Your task to perform on an android device: set default search engine in the chrome app Image 0: 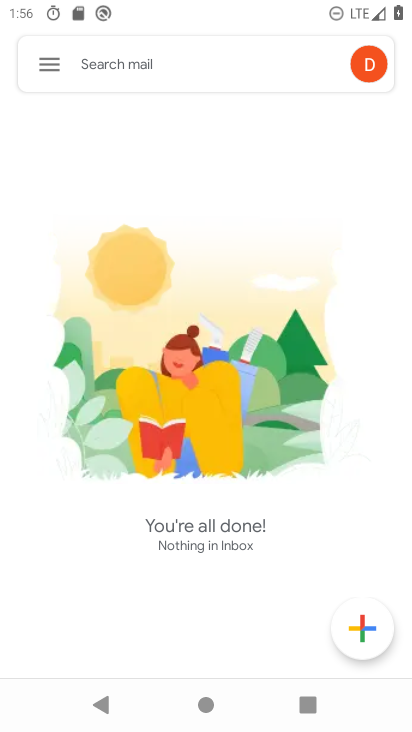
Step 0: press home button
Your task to perform on an android device: set default search engine in the chrome app Image 1: 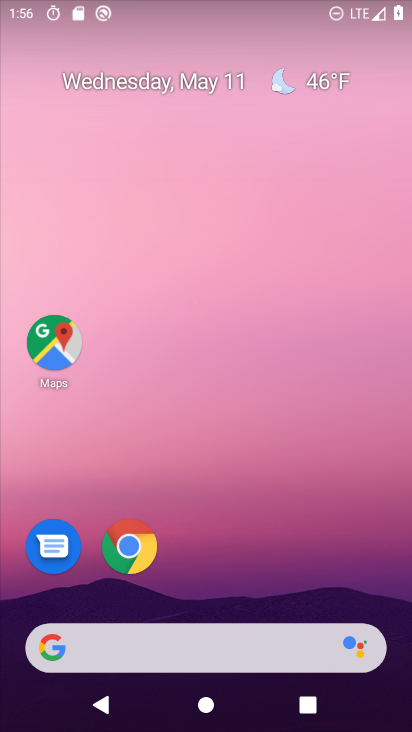
Step 1: drag from (220, 672) to (156, 271)
Your task to perform on an android device: set default search engine in the chrome app Image 2: 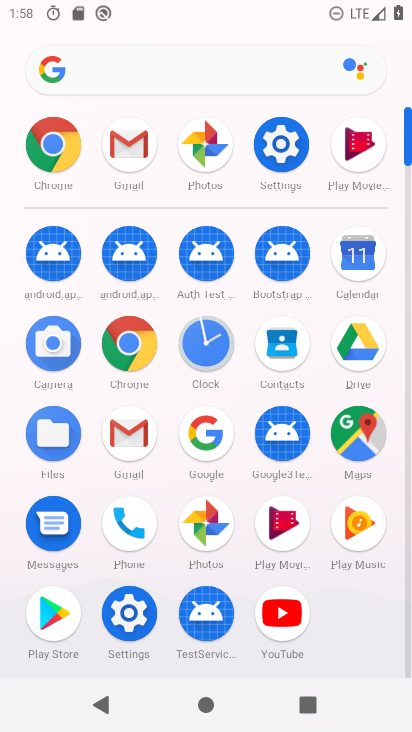
Step 2: click (60, 141)
Your task to perform on an android device: set default search engine in the chrome app Image 3: 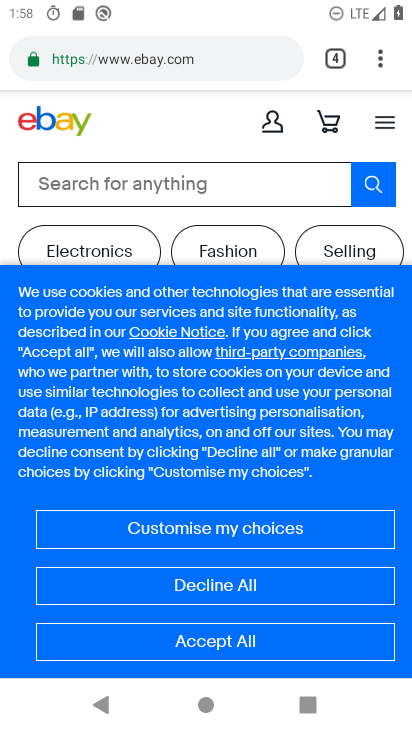
Step 3: click (371, 74)
Your task to perform on an android device: set default search engine in the chrome app Image 4: 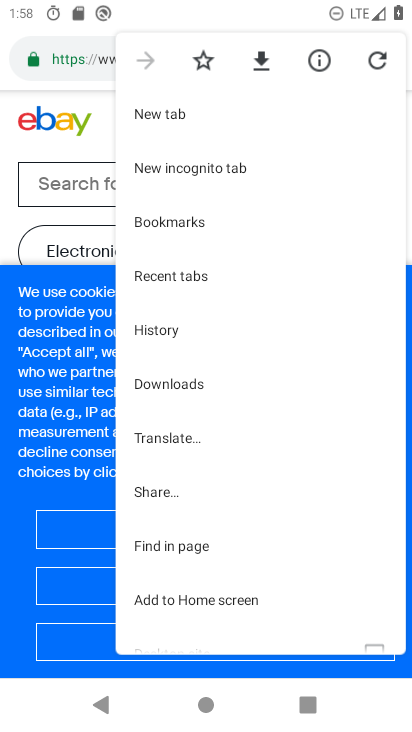
Step 4: drag from (223, 581) to (202, 322)
Your task to perform on an android device: set default search engine in the chrome app Image 5: 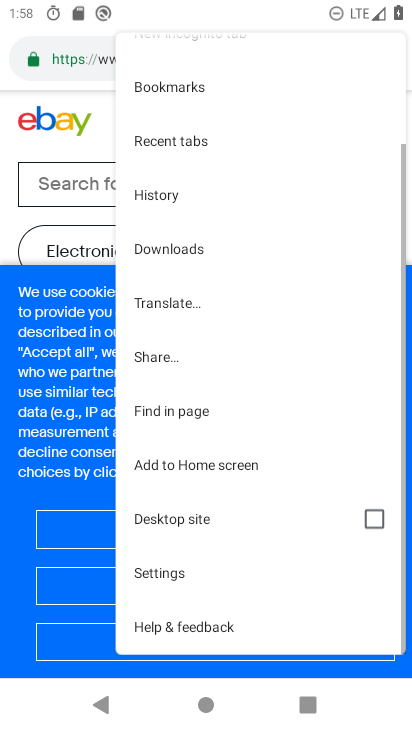
Step 5: click (205, 566)
Your task to perform on an android device: set default search engine in the chrome app Image 6: 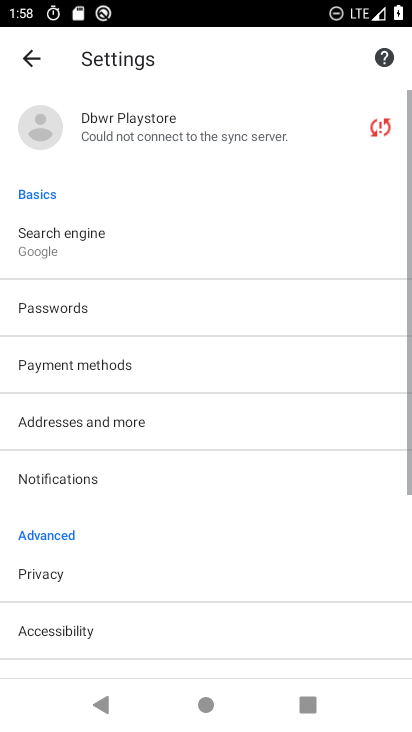
Step 6: click (94, 247)
Your task to perform on an android device: set default search engine in the chrome app Image 7: 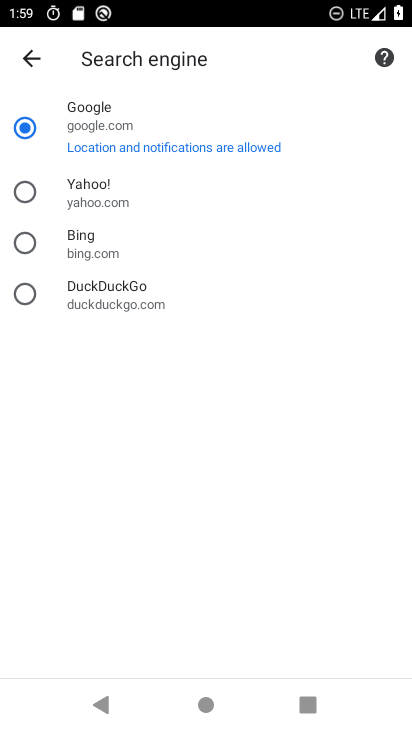
Step 7: click (83, 119)
Your task to perform on an android device: set default search engine in the chrome app Image 8: 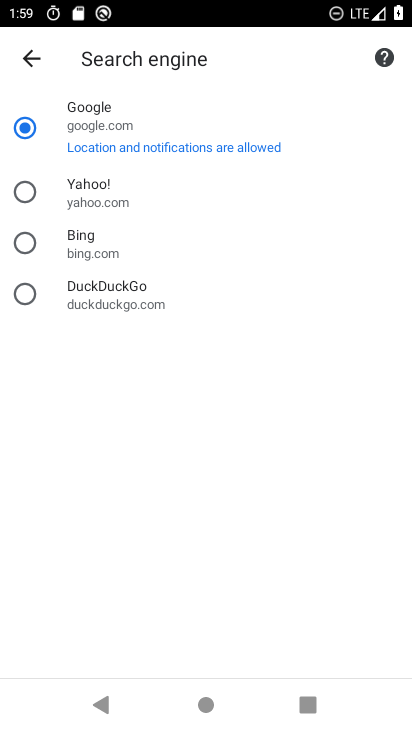
Step 8: task complete